Your task to perform on an android device: Search for vegetarian restaurants on Maps Image 0: 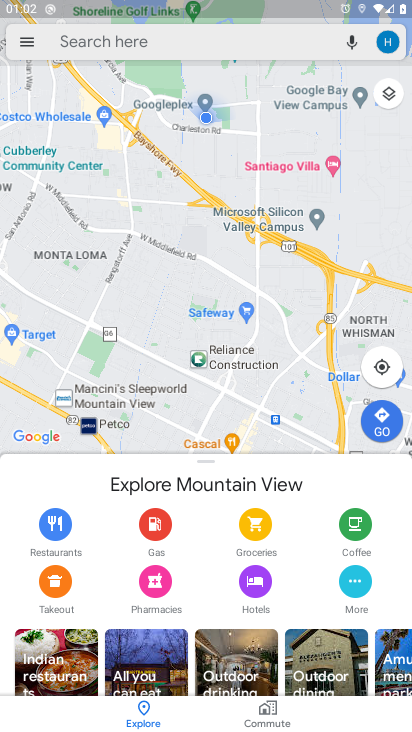
Step 0: click (120, 41)
Your task to perform on an android device: Search for vegetarian restaurants on Maps Image 1: 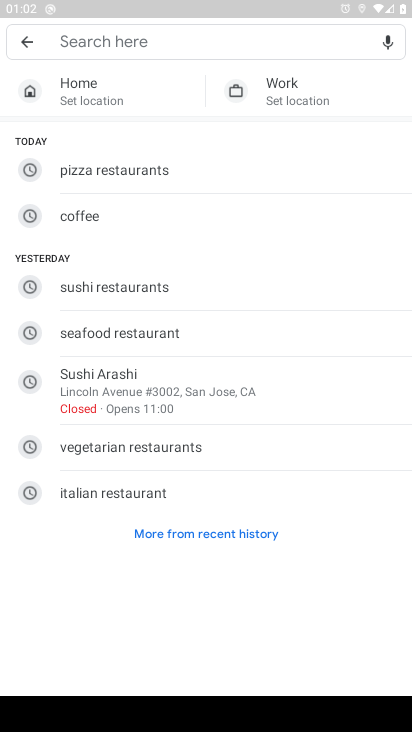
Step 1: click (121, 455)
Your task to perform on an android device: Search for vegetarian restaurants on Maps Image 2: 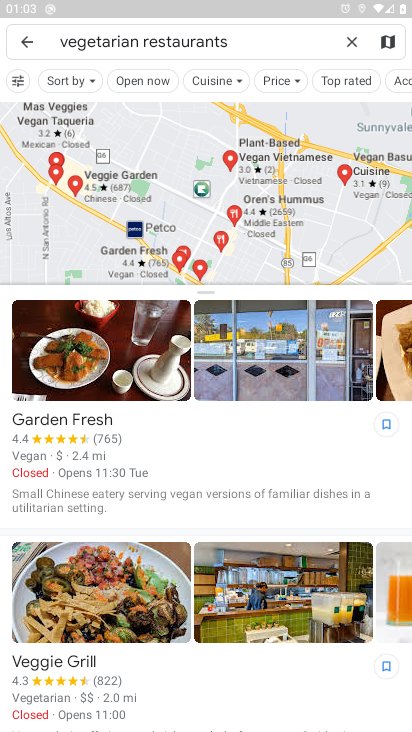
Step 2: task complete